Your task to perform on an android device: refresh tabs in the chrome app Image 0: 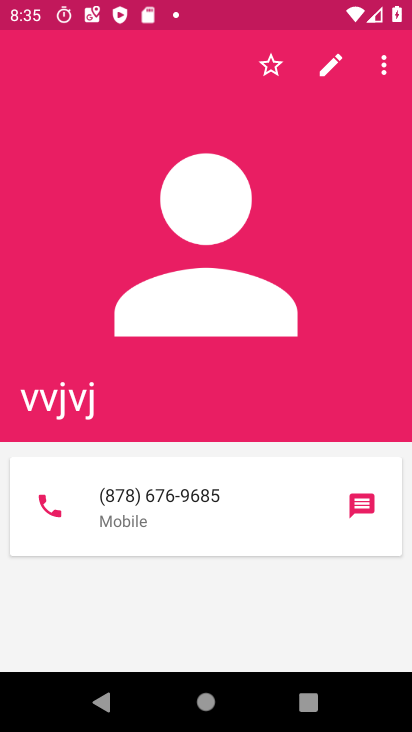
Step 0: press home button
Your task to perform on an android device: refresh tabs in the chrome app Image 1: 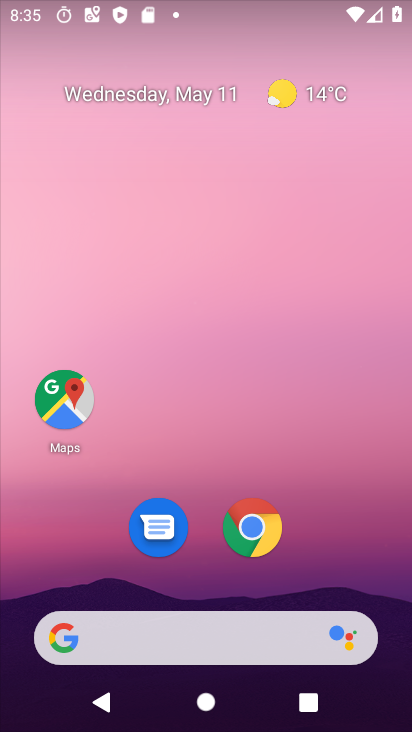
Step 1: drag from (206, 579) to (283, 91)
Your task to perform on an android device: refresh tabs in the chrome app Image 2: 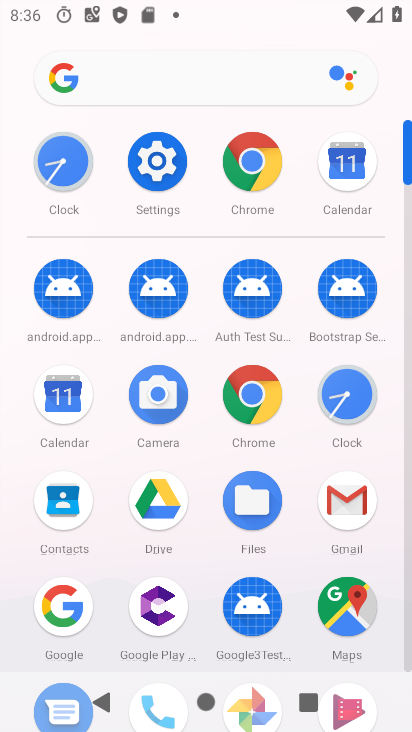
Step 2: click (267, 176)
Your task to perform on an android device: refresh tabs in the chrome app Image 3: 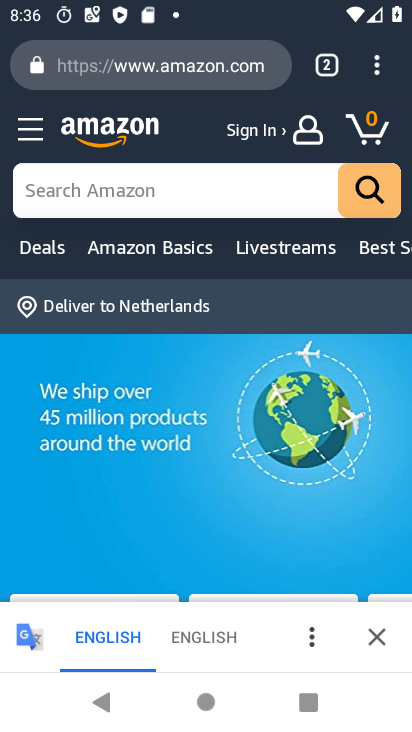
Step 3: click (393, 61)
Your task to perform on an android device: refresh tabs in the chrome app Image 4: 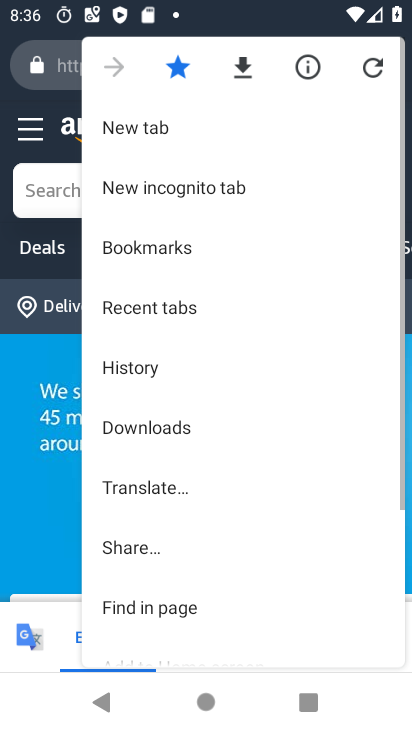
Step 4: click (373, 70)
Your task to perform on an android device: refresh tabs in the chrome app Image 5: 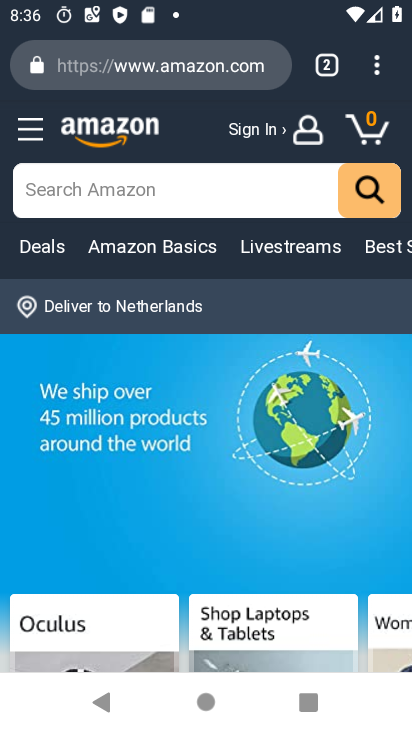
Step 5: task complete